Your task to perform on an android device: toggle sleep mode Image 0: 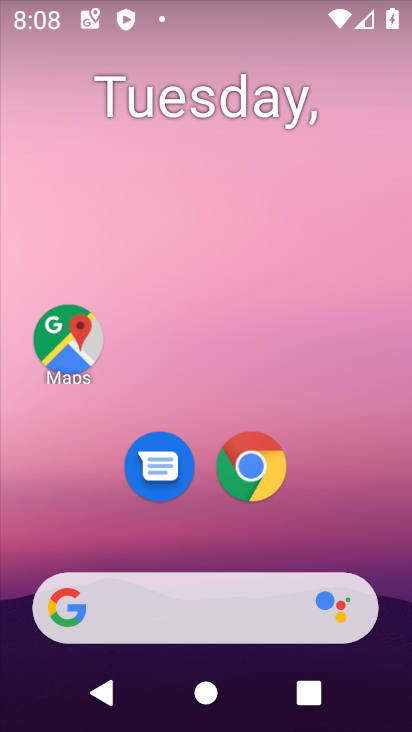
Step 0: drag from (339, 564) to (295, 258)
Your task to perform on an android device: toggle sleep mode Image 1: 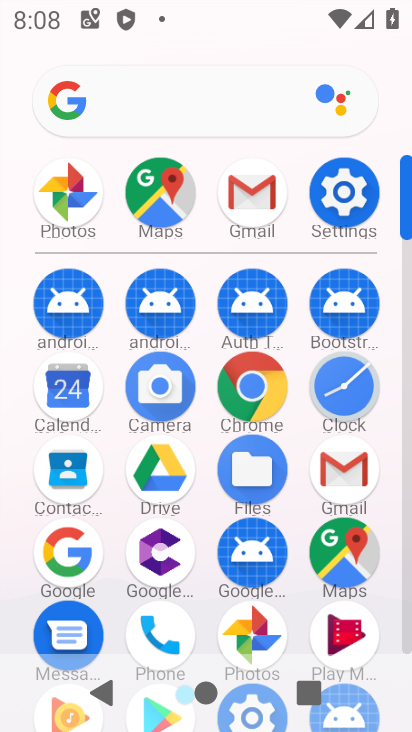
Step 1: click (351, 205)
Your task to perform on an android device: toggle sleep mode Image 2: 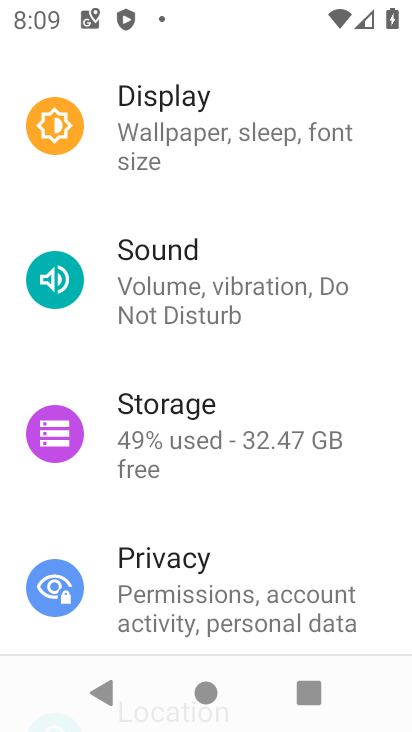
Step 2: task complete